Your task to perform on an android device: delete the emails in spam in the gmail app Image 0: 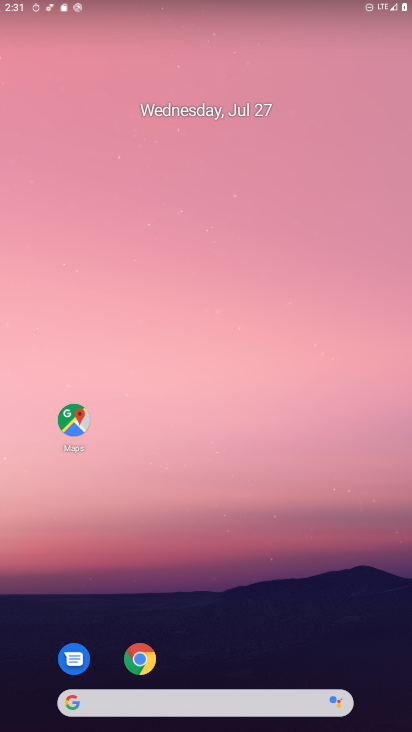
Step 0: drag from (234, 489) to (239, 59)
Your task to perform on an android device: delete the emails in spam in the gmail app Image 1: 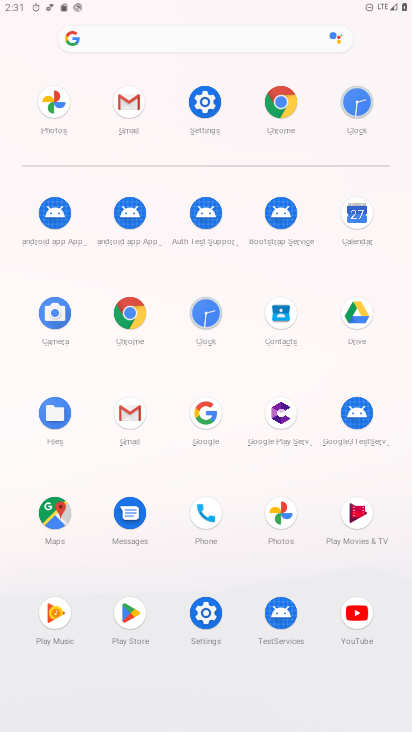
Step 1: click (126, 103)
Your task to perform on an android device: delete the emails in spam in the gmail app Image 2: 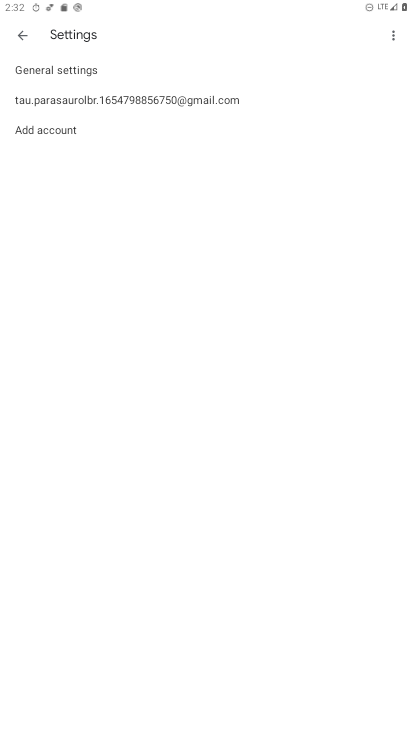
Step 2: click (20, 36)
Your task to perform on an android device: delete the emails in spam in the gmail app Image 3: 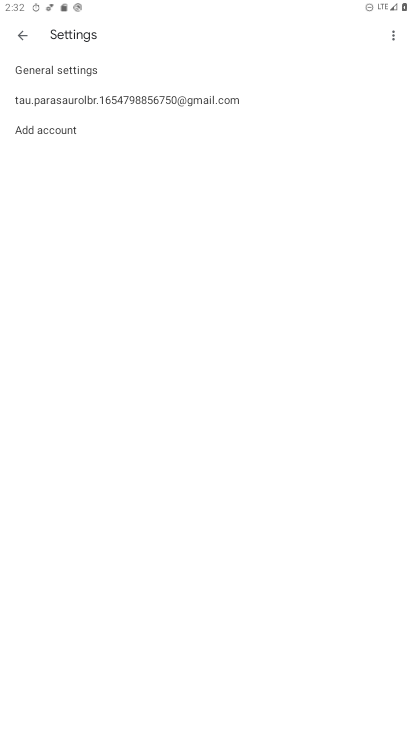
Step 3: click (20, 36)
Your task to perform on an android device: delete the emails in spam in the gmail app Image 4: 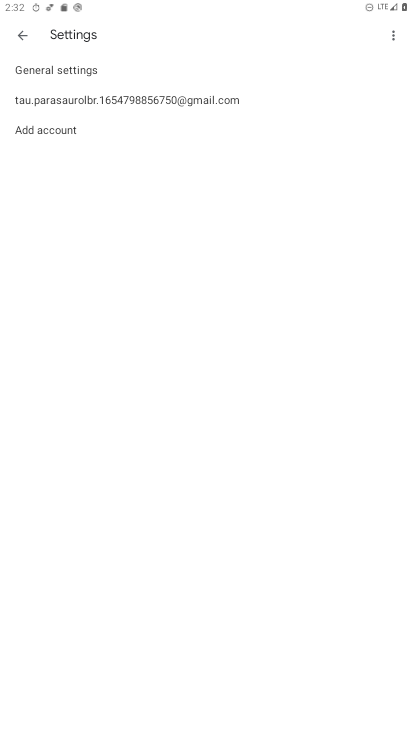
Step 4: click (21, 30)
Your task to perform on an android device: delete the emails in spam in the gmail app Image 5: 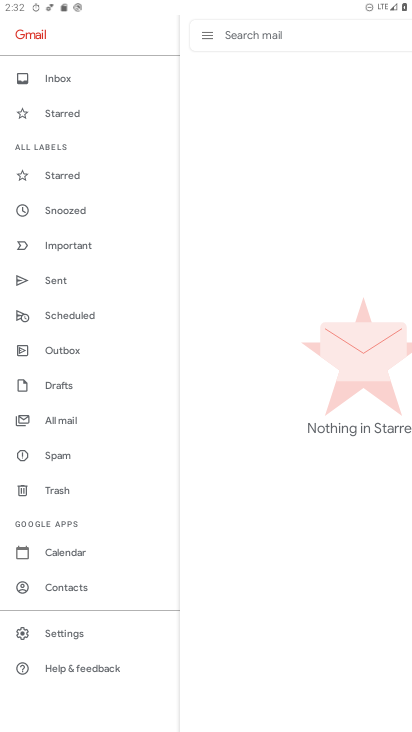
Step 5: click (63, 434)
Your task to perform on an android device: delete the emails in spam in the gmail app Image 6: 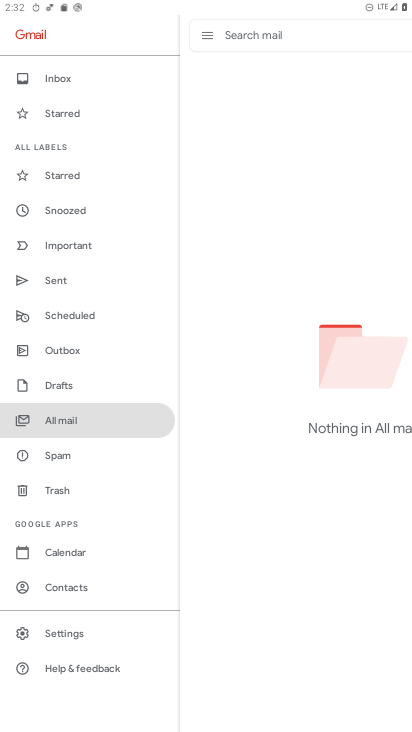
Step 6: click (54, 452)
Your task to perform on an android device: delete the emails in spam in the gmail app Image 7: 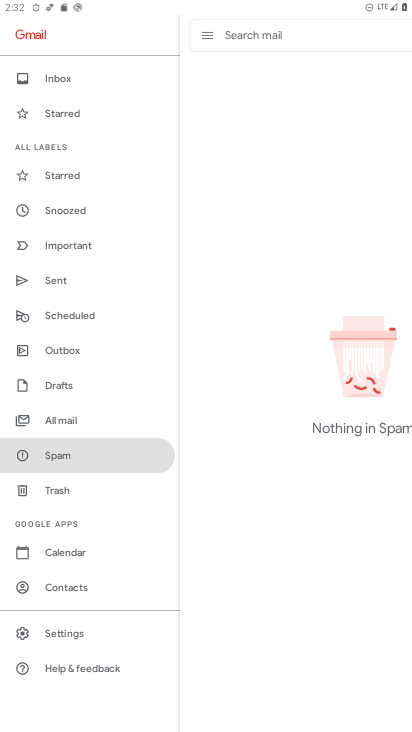
Step 7: task complete